Your task to perform on an android device: visit the assistant section in the google photos Image 0: 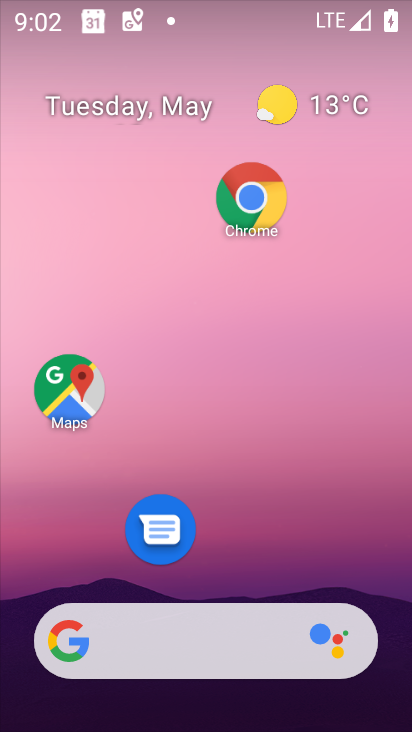
Step 0: drag from (270, 559) to (281, 158)
Your task to perform on an android device: visit the assistant section in the google photos Image 1: 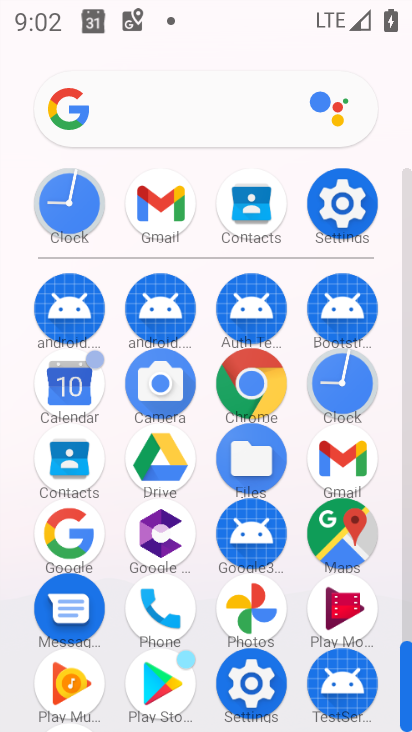
Step 1: click (252, 596)
Your task to perform on an android device: visit the assistant section in the google photos Image 2: 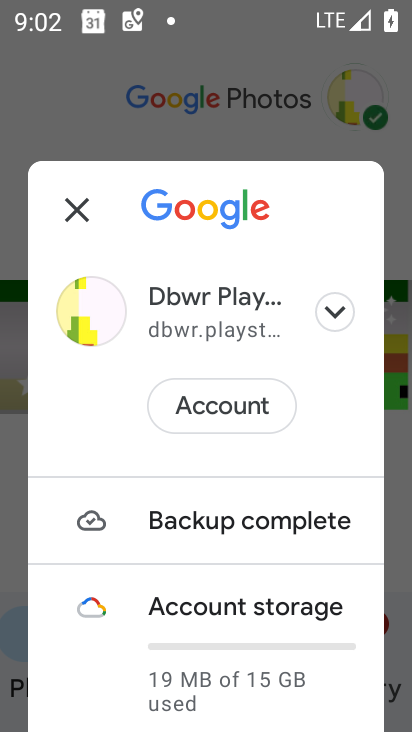
Step 2: drag from (200, 654) to (288, 323)
Your task to perform on an android device: visit the assistant section in the google photos Image 3: 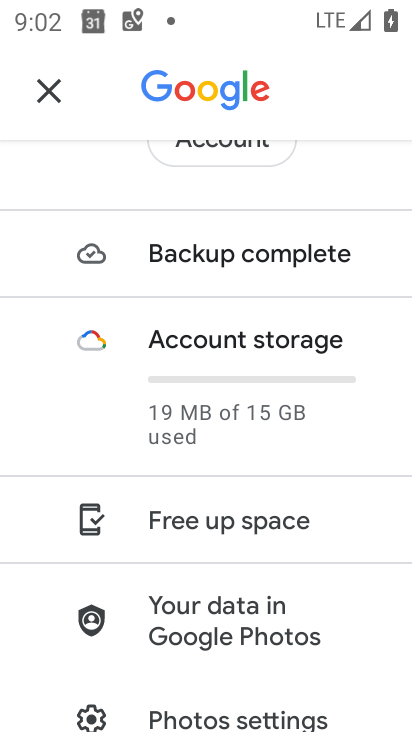
Step 3: drag from (142, 645) to (229, 299)
Your task to perform on an android device: visit the assistant section in the google photos Image 4: 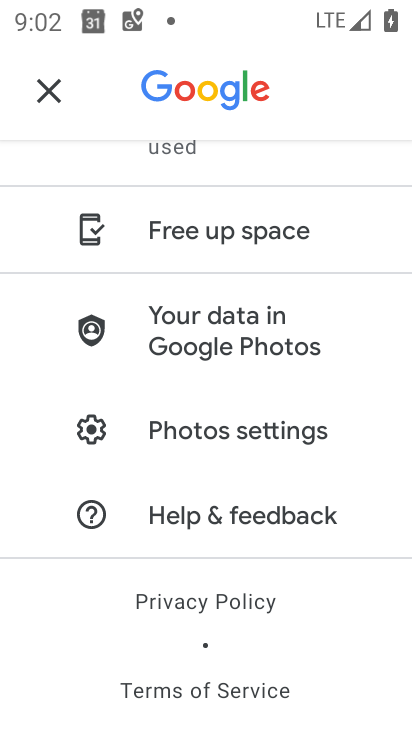
Step 4: click (231, 444)
Your task to perform on an android device: visit the assistant section in the google photos Image 5: 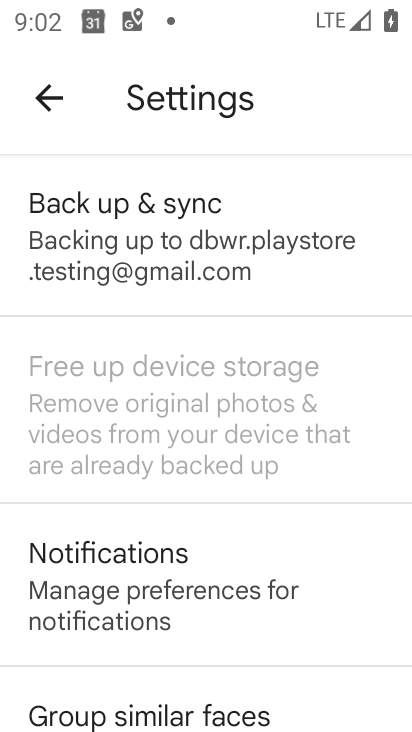
Step 5: task complete